Your task to perform on an android device: Check the weather Image 0: 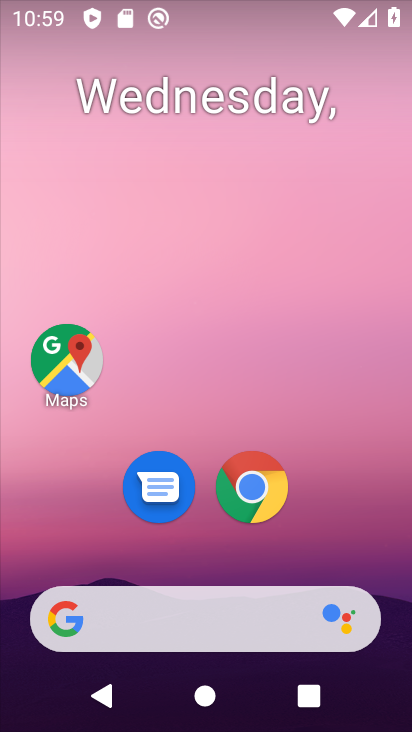
Step 0: click (73, 616)
Your task to perform on an android device: Check the weather Image 1: 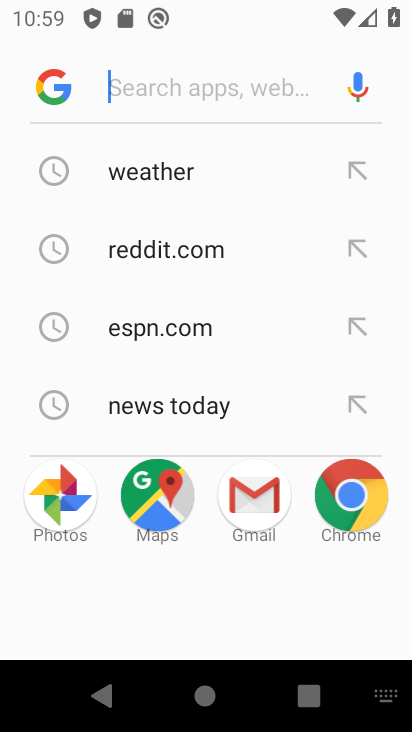
Step 1: click (174, 166)
Your task to perform on an android device: Check the weather Image 2: 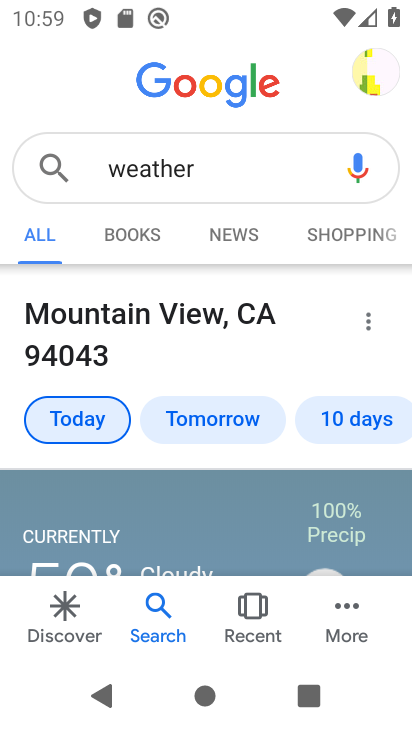
Step 2: task complete